Your task to perform on an android device: turn on airplane mode Image 0: 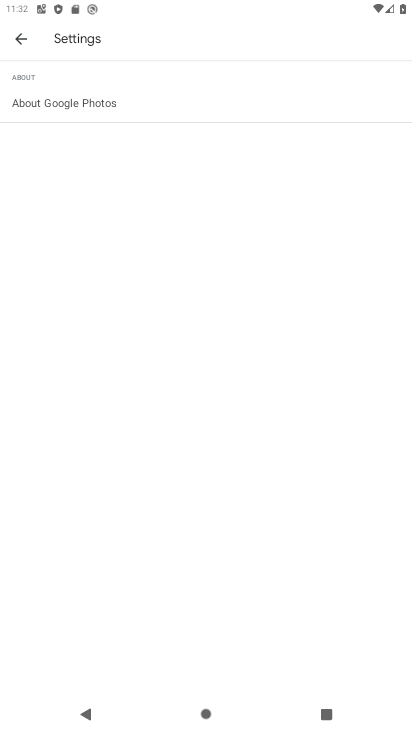
Step 0: press home button
Your task to perform on an android device: turn on airplane mode Image 1: 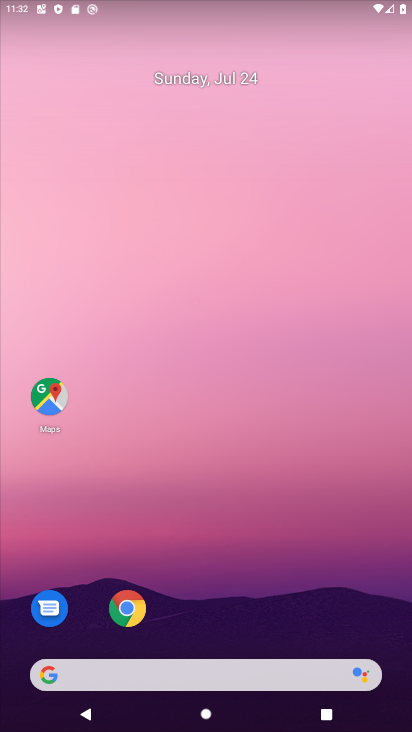
Step 1: drag from (227, 647) to (291, 8)
Your task to perform on an android device: turn on airplane mode Image 2: 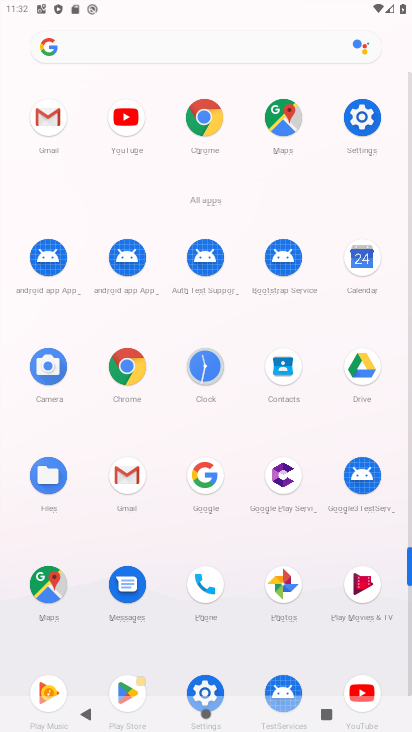
Step 2: click (363, 131)
Your task to perform on an android device: turn on airplane mode Image 3: 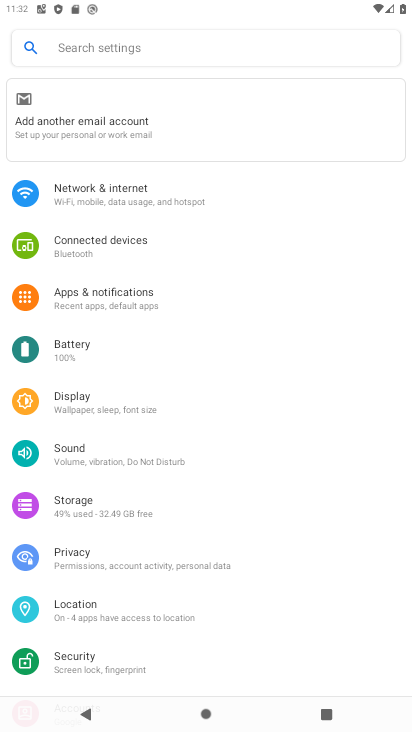
Step 3: click (126, 204)
Your task to perform on an android device: turn on airplane mode Image 4: 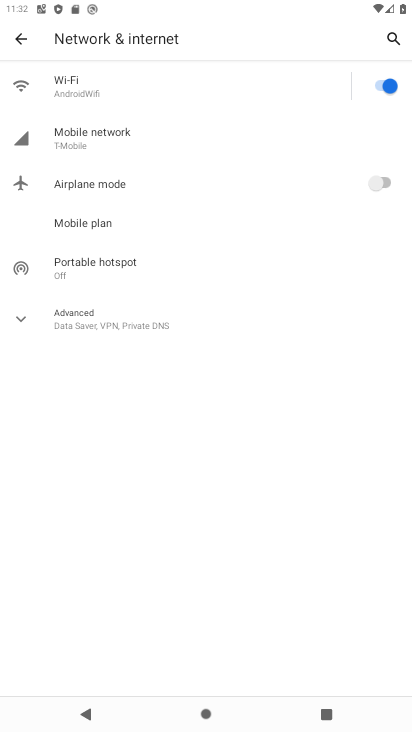
Step 4: click (376, 190)
Your task to perform on an android device: turn on airplane mode Image 5: 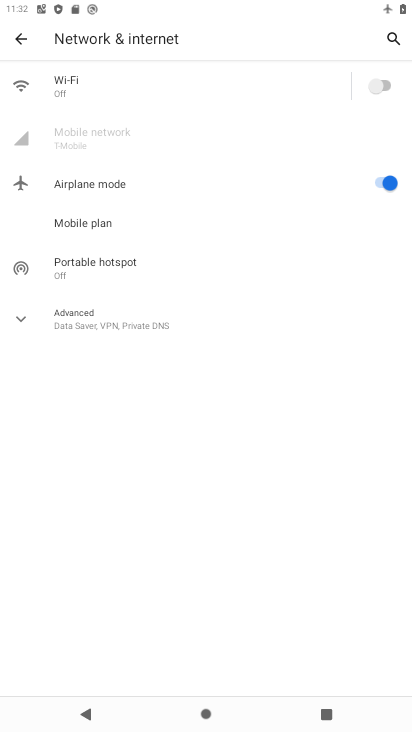
Step 5: task complete